Your task to perform on an android device: turn on javascript in the chrome app Image 0: 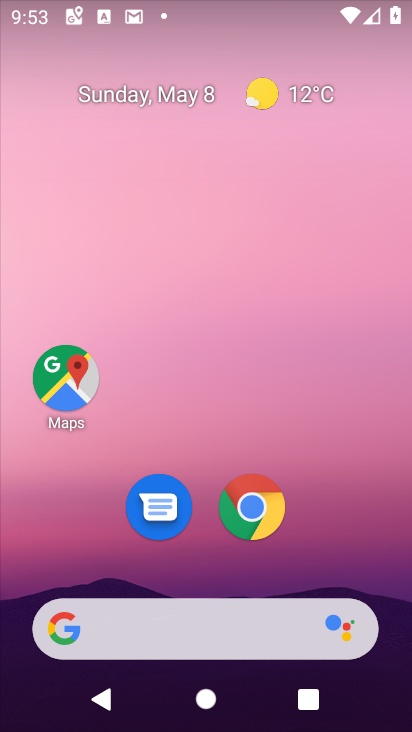
Step 0: click (255, 494)
Your task to perform on an android device: turn on javascript in the chrome app Image 1: 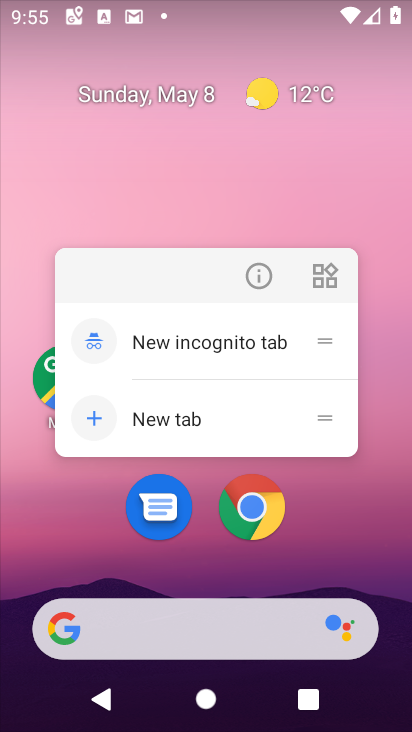
Step 1: click (221, 552)
Your task to perform on an android device: turn on javascript in the chrome app Image 2: 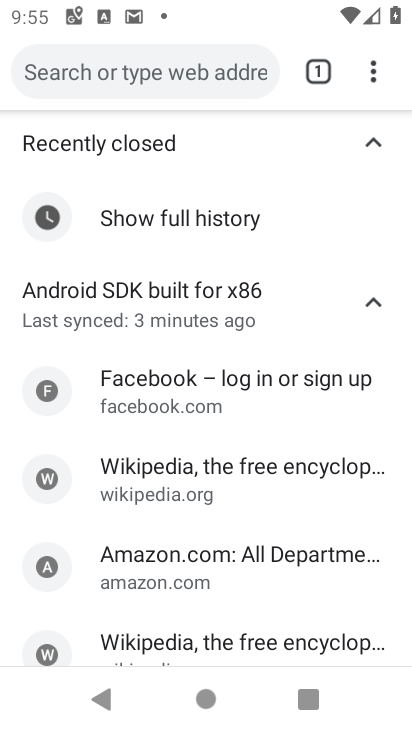
Step 2: click (373, 68)
Your task to perform on an android device: turn on javascript in the chrome app Image 3: 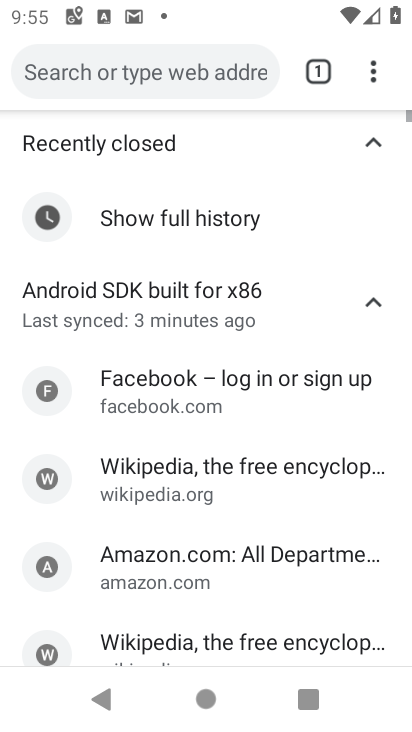
Step 3: click (373, 69)
Your task to perform on an android device: turn on javascript in the chrome app Image 4: 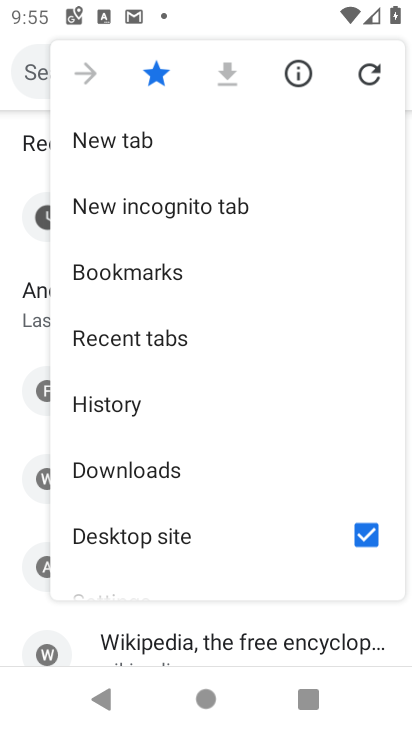
Step 4: click (159, 593)
Your task to perform on an android device: turn on javascript in the chrome app Image 5: 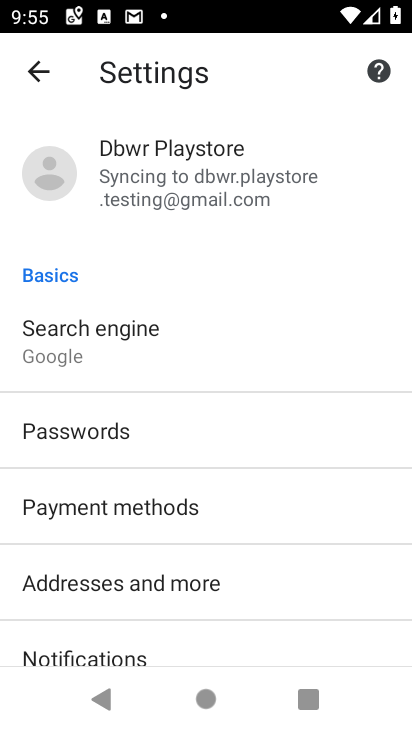
Step 5: drag from (304, 511) to (222, 5)
Your task to perform on an android device: turn on javascript in the chrome app Image 6: 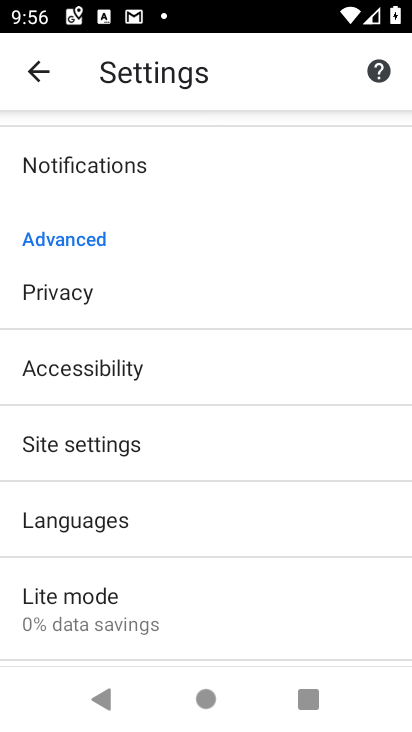
Step 6: click (65, 432)
Your task to perform on an android device: turn on javascript in the chrome app Image 7: 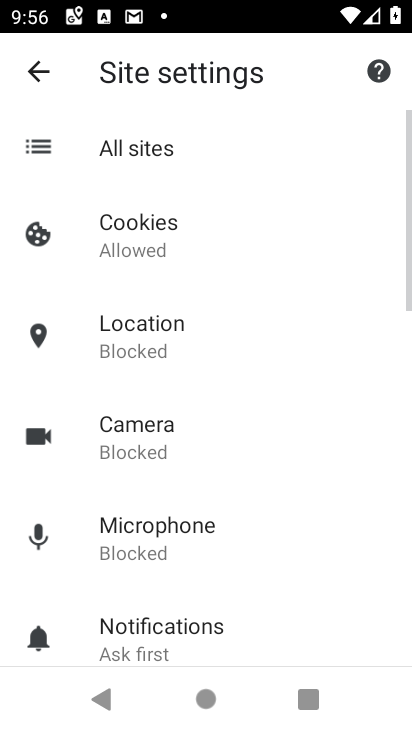
Step 7: drag from (205, 600) to (188, 79)
Your task to perform on an android device: turn on javascript in the chrome app Image 8: 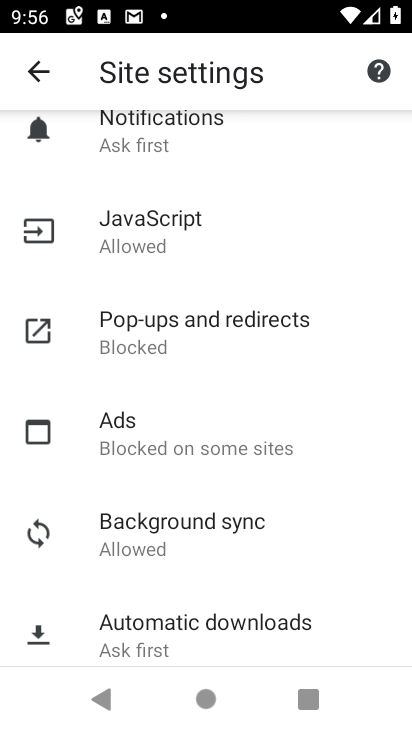
Step 8: click (150, 241)
Your task to perform on an android device: turn on javascript in the chrome app Image 9: 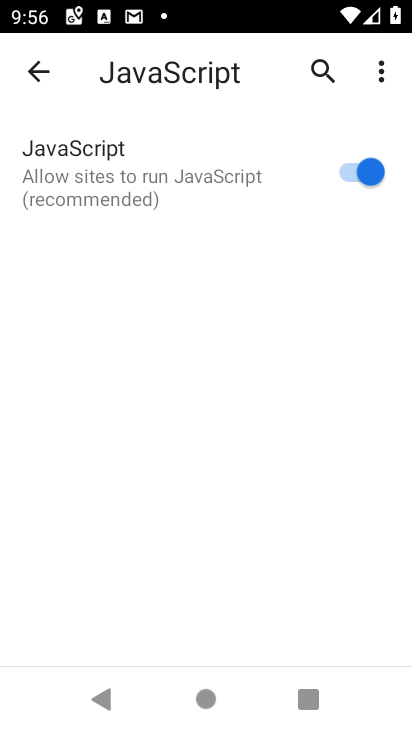
Step 9: task complete